Your task to perform on an android device: turn on the 24-hour format for clock Image 0: 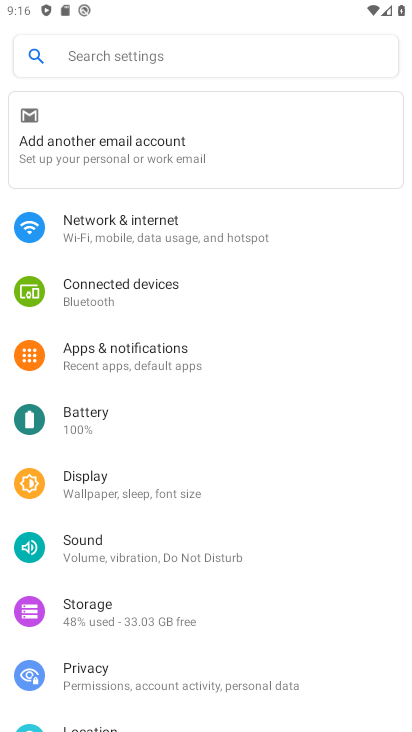
Step 0: press home button
Your task to perform on an android device: turn on the 24-hour format for clock Image 1: 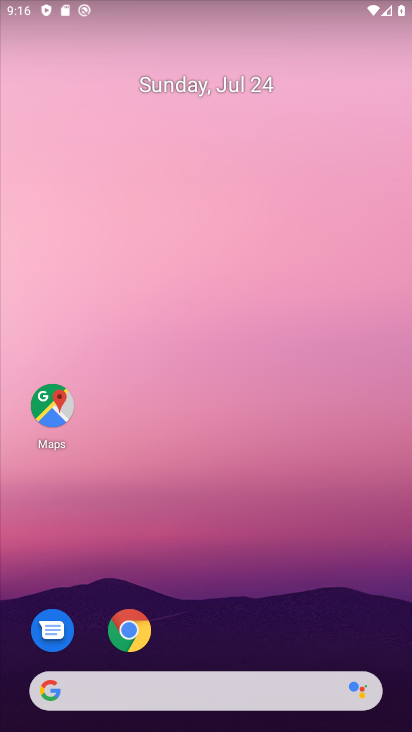
Step 1: drag from (224, 660) to (231, 123)
Your task to perform on an android device: turn on the 24-hour format for clock Image 2: 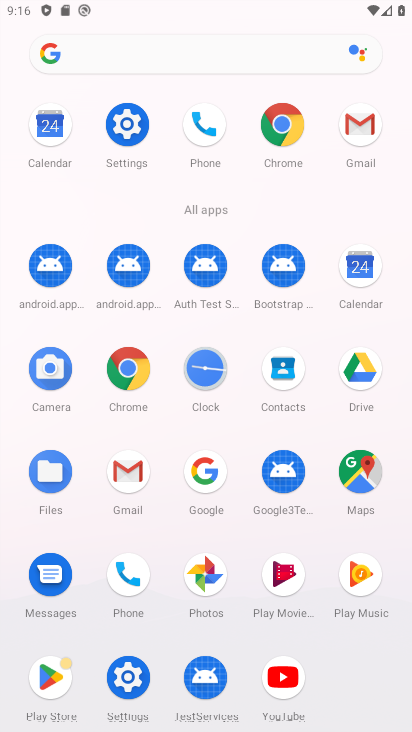
Step 2: click (206, 370)
Your task to perform on an android device: turn on the 24-hour format for clock Image 3: 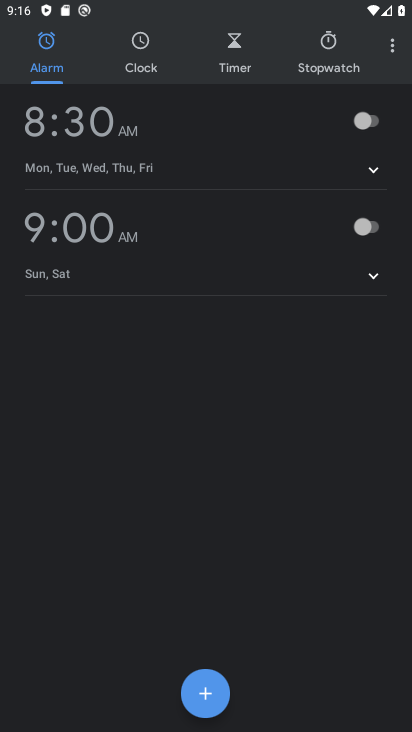
Step 3: click (388, 31)
Your task to perform on an android device: turn on the 24-hour format for clock Image 4: 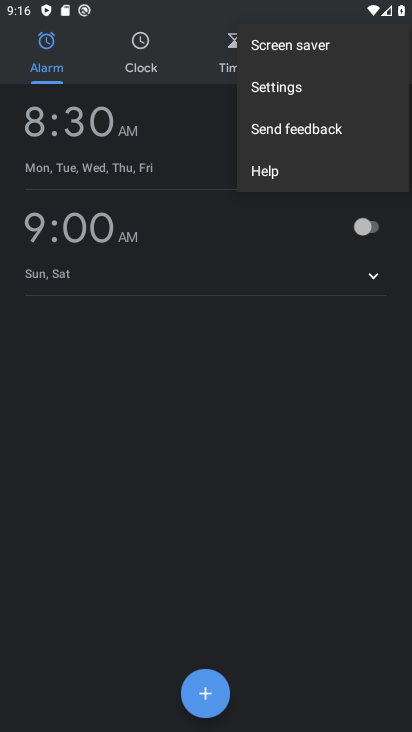
Step 4: click (318, 90)
Your task to perform on an android device: turn on the 24-hour format for clock Image 5: 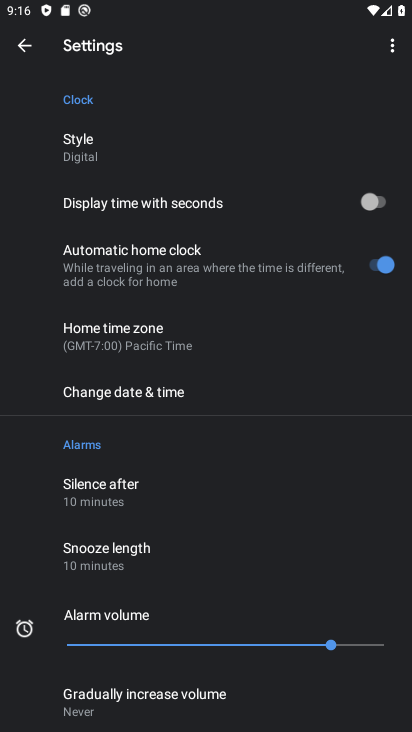
Step 5: click (135, 387)
Your task to perform on an android device: turn on the 24-hour format for clock Image 6: 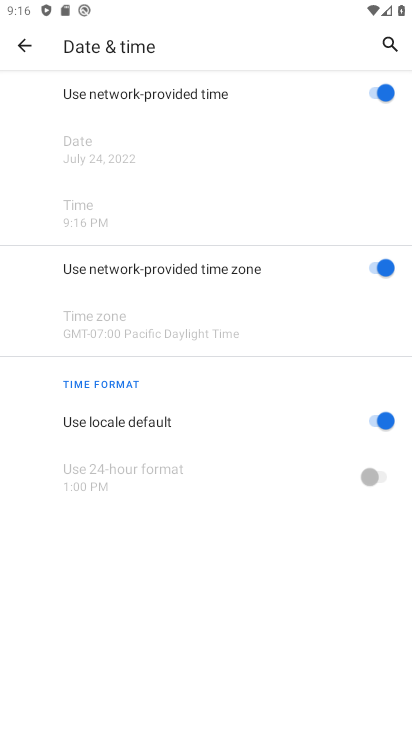
Step 6: click (381, 416)
Your task to perform on an android device: turn on the 24-hour format for clock Image 7: 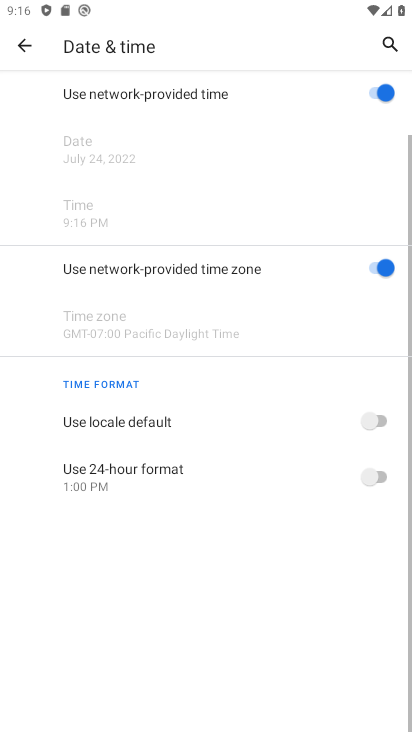
Step 7: click (384, 477)
Your task to perform on an android device: turn on the 24-hour format for clock Image 8: 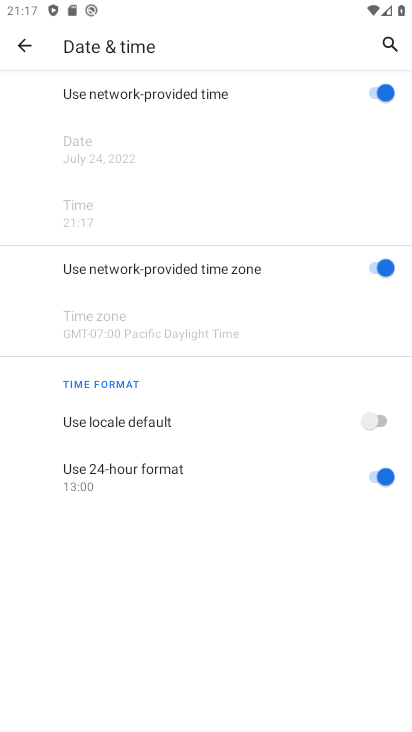
Step 8: task complete